Your task to perform on an android device: Search for flights from Sydney to Zurich Image 0: 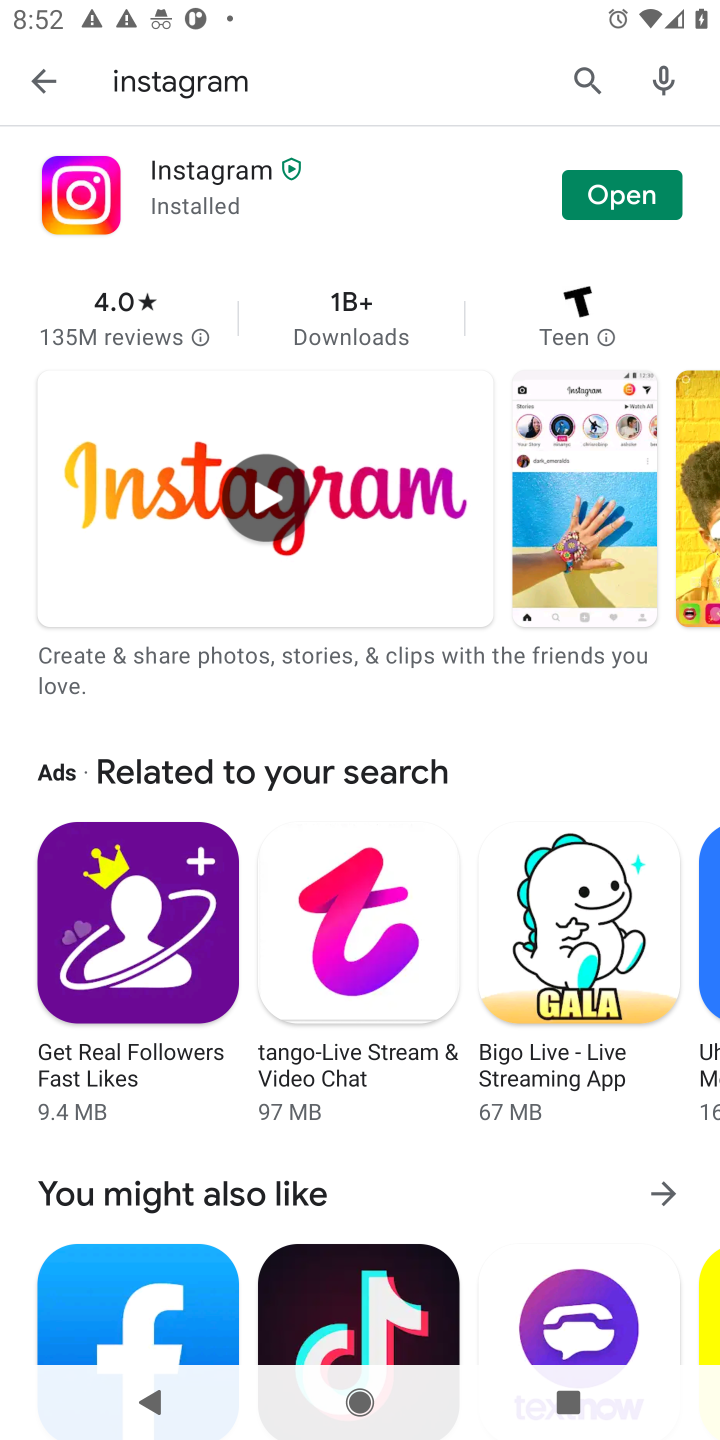
Step 0: press home button
Your task to perform on an android device: Search for flights from Sydney to Zurich Image 1: 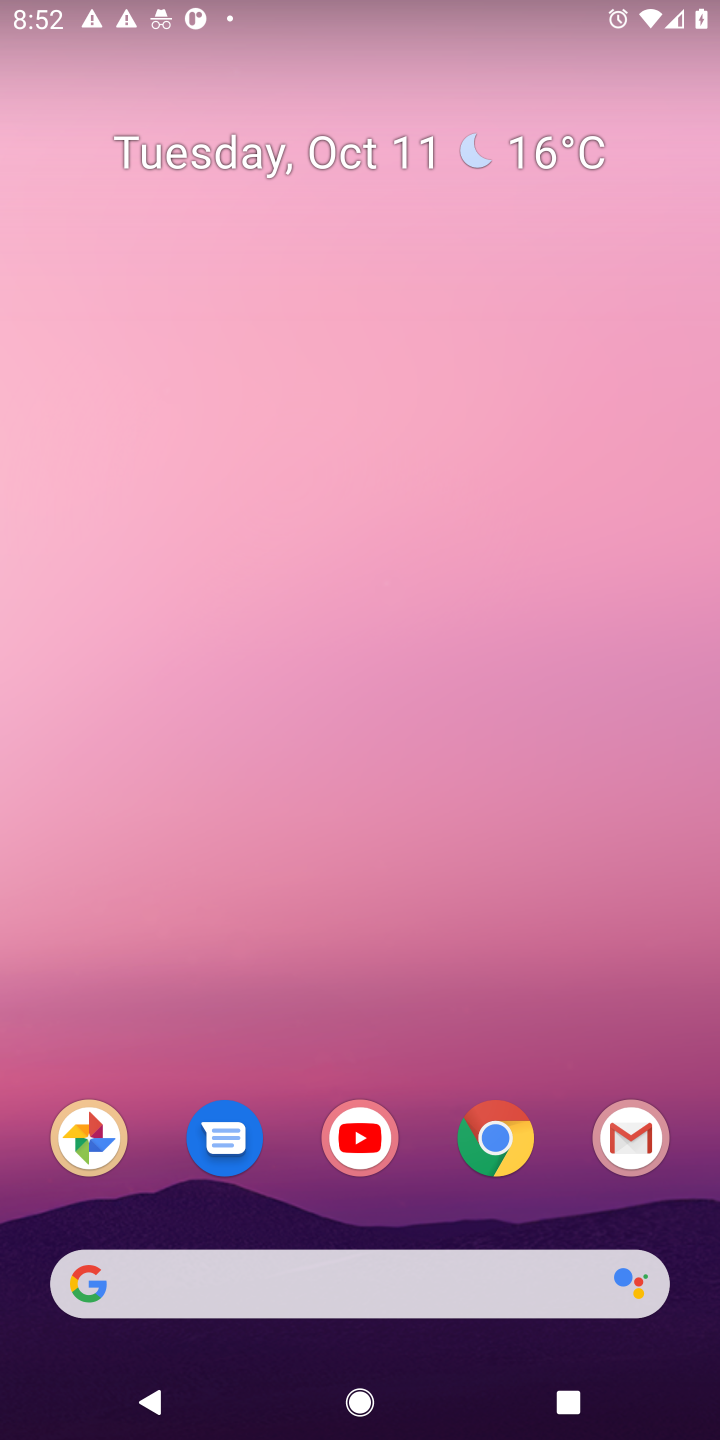
Step 1: click (407, 1265)
Your task to perform on an android device: Search for flights from Sydney to Zurich Image 2: 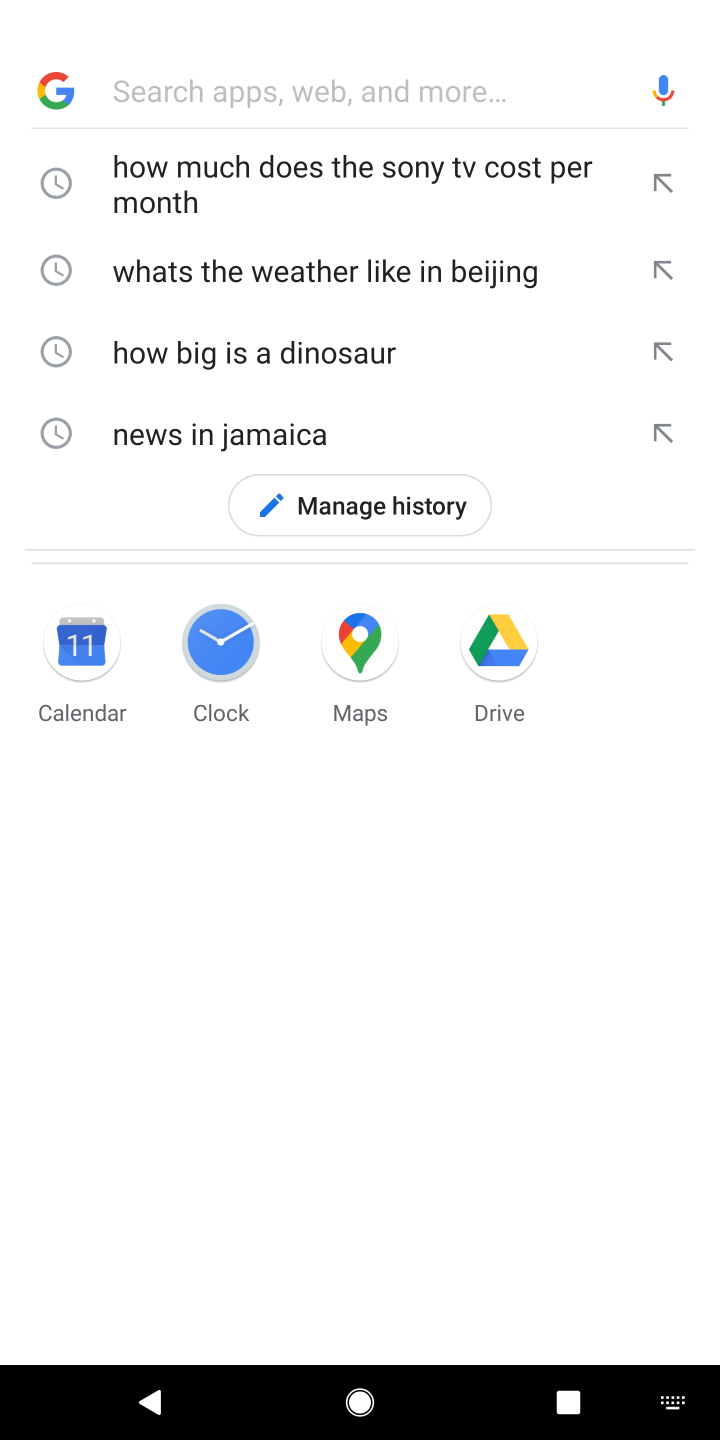
Step 2: type "flights from Sydney to Zurich"
Your task to perform on an android device: Search for flights from Sydney to Zurich Image 3: 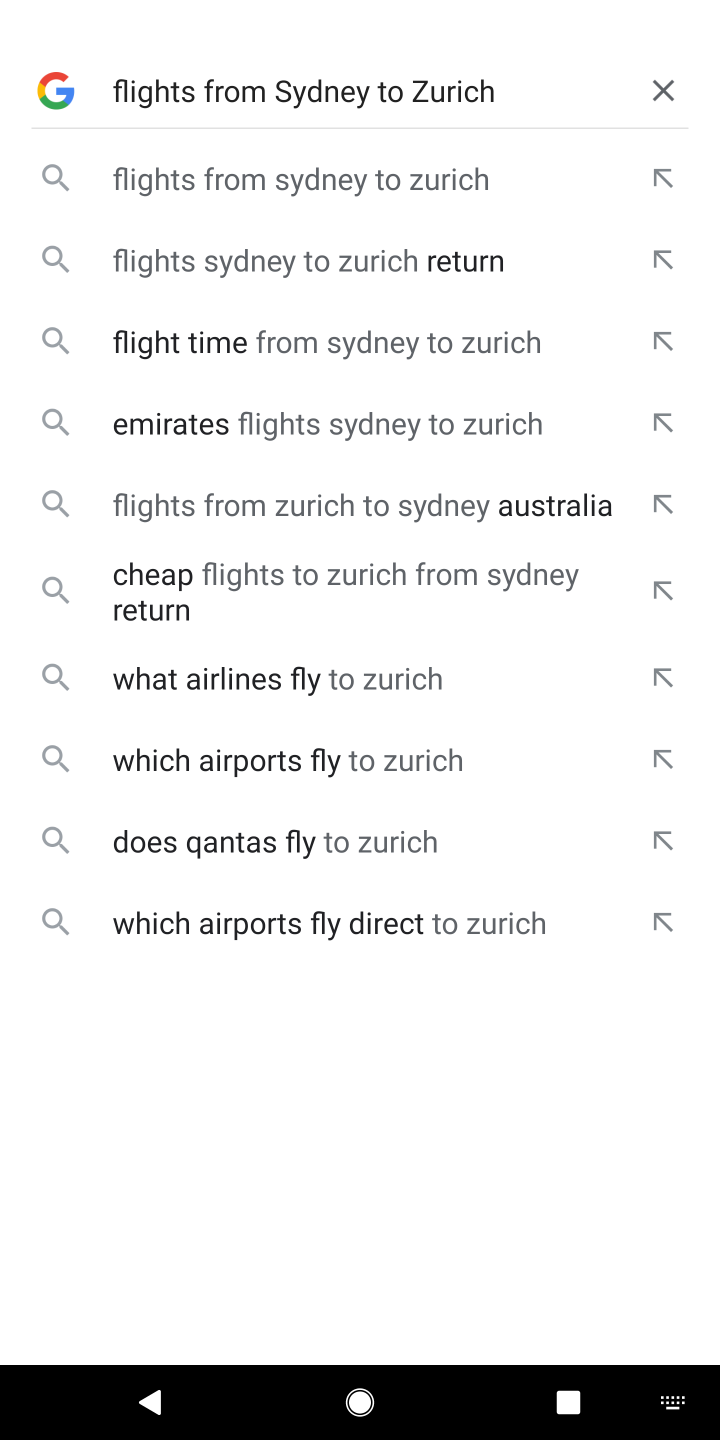
Step 3: click (231, 175)
Your task to perform on an android device: Search for flights from Sydney to Zurich Image 4: 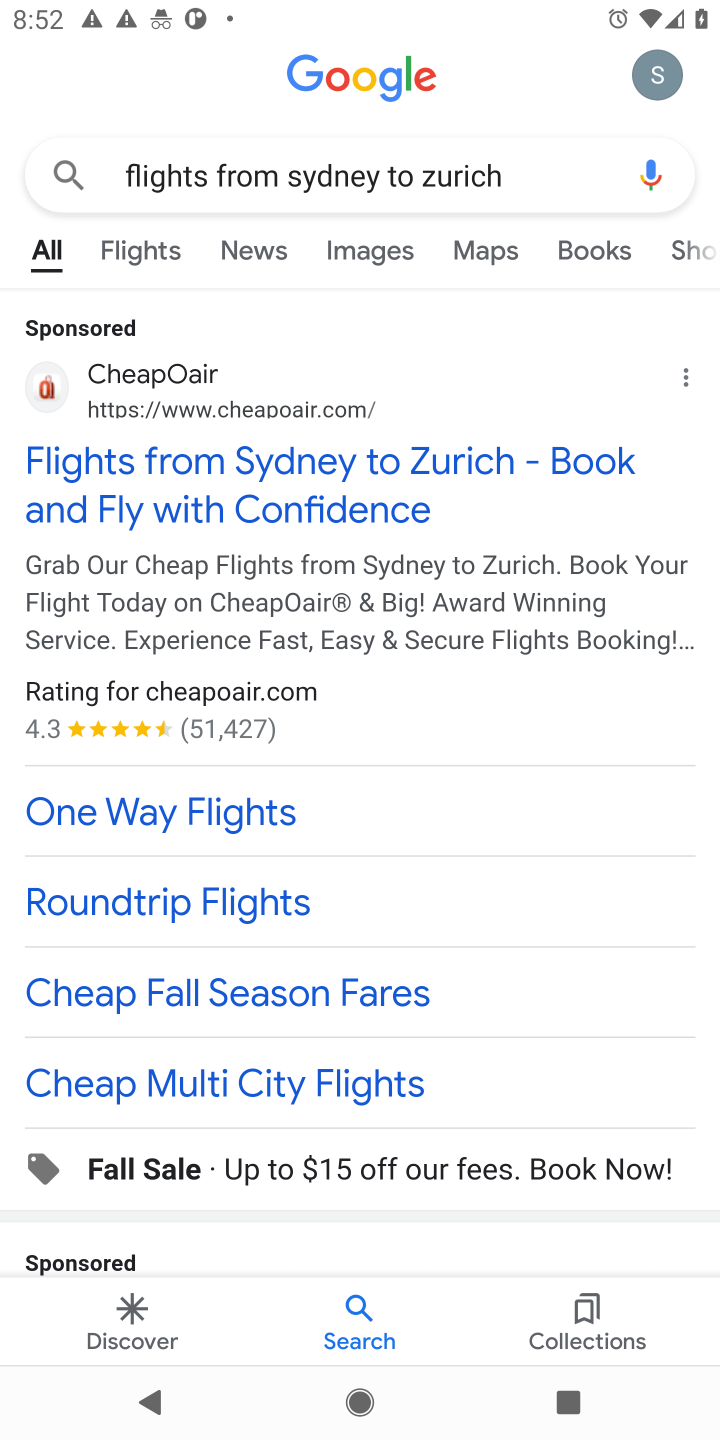
Step 4: click (239, 456)
Your task to perform on an android device: Search for flights from Sydney to Zurich Image 5: 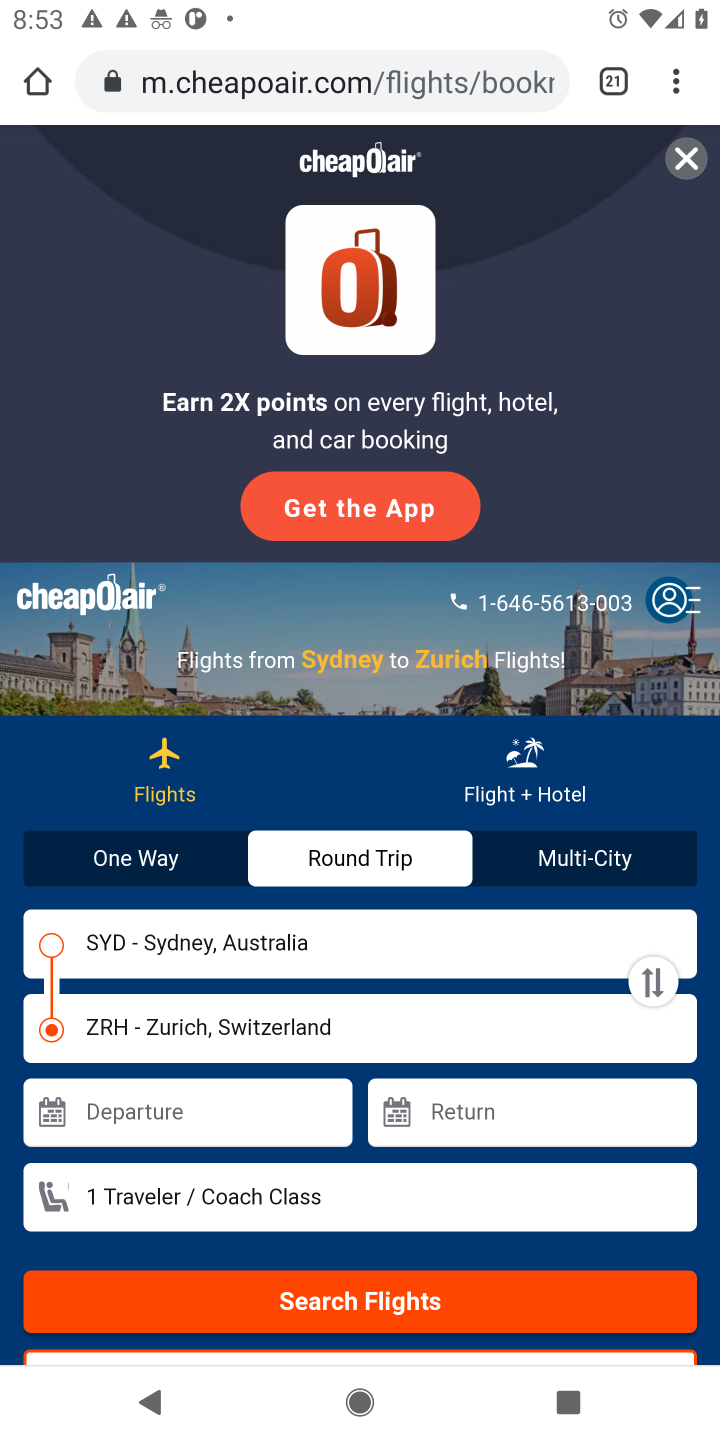
Step 5: click (121, 870)
Your task to perform on an android device: Search for flights from Sydney to Zurich Image 6: 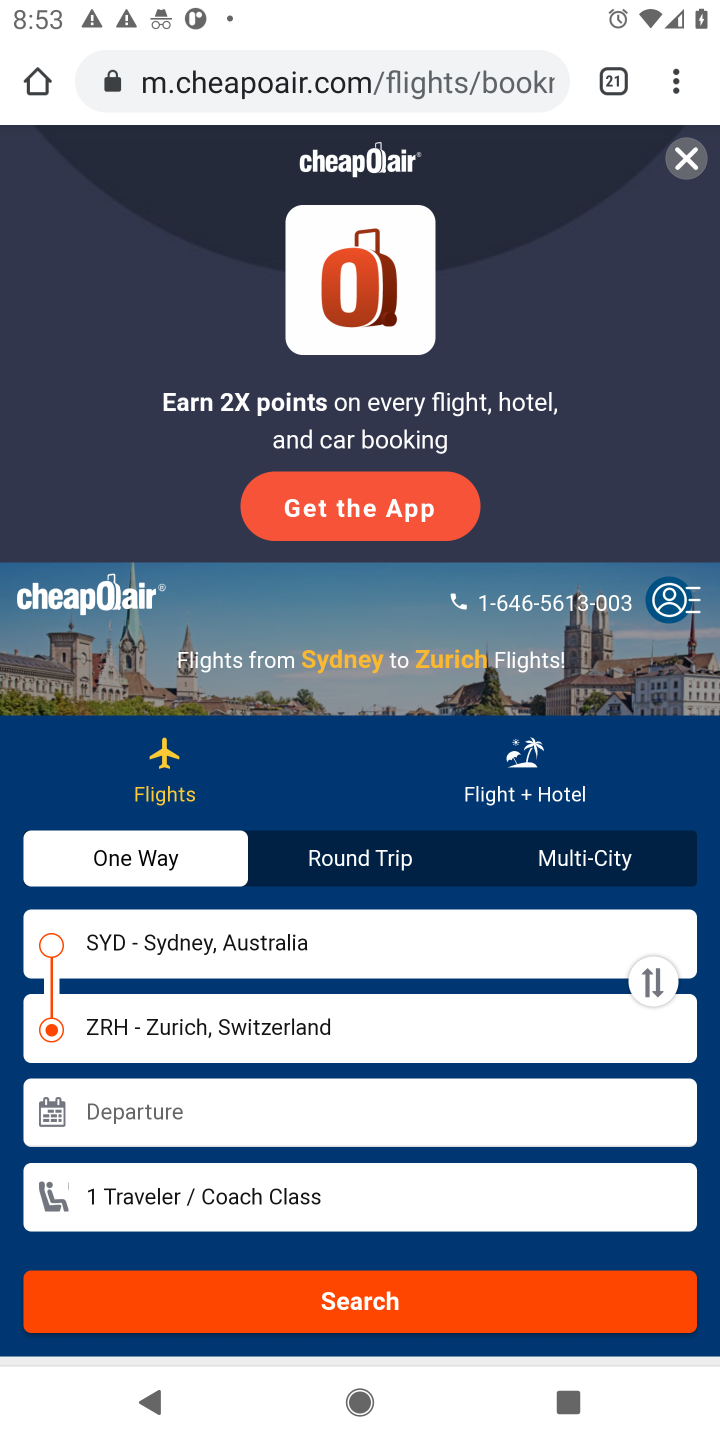
Step 6: click (400, 1306)
Your task to perform on an android device: Search for flights from Sydney to Zurich Image 7: 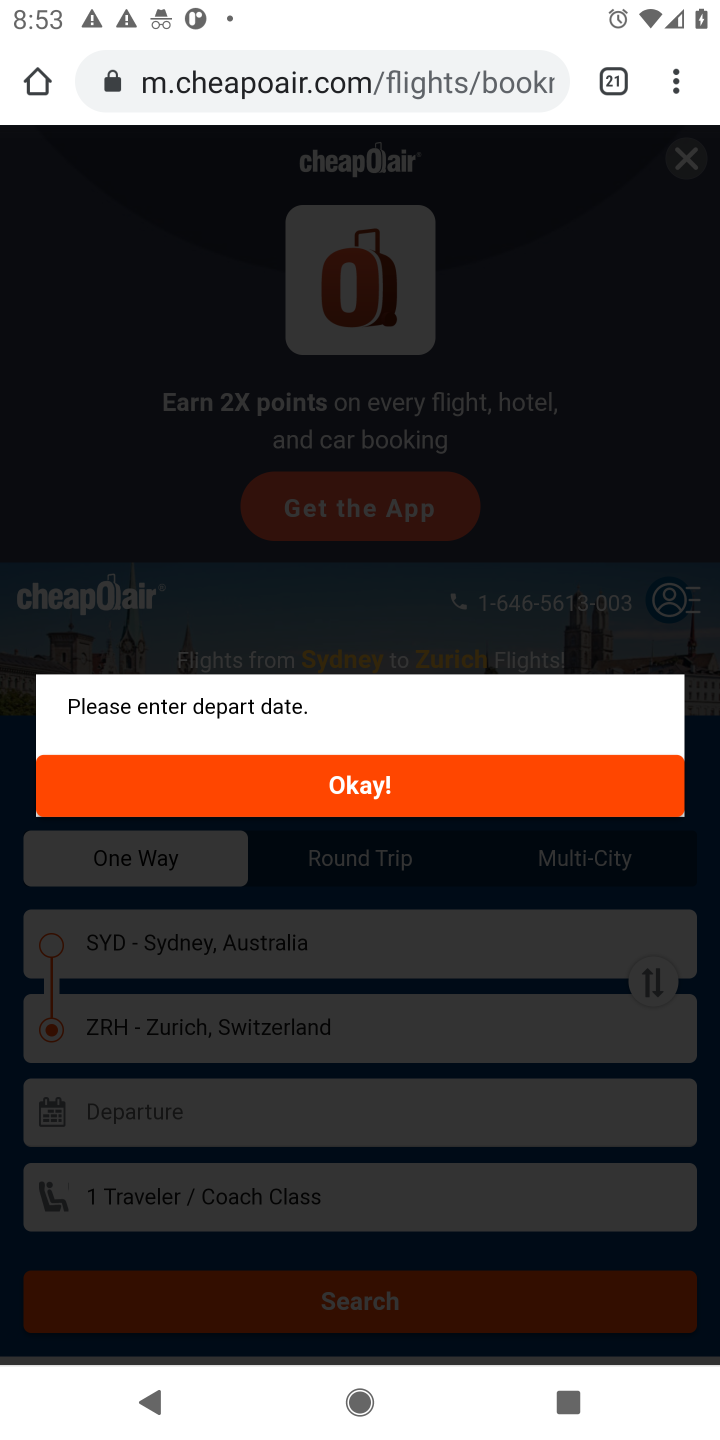
Step 7: click (382, 785)
Your task to perform on an android device: Search for flights from Sydney to Zurich Image 8: 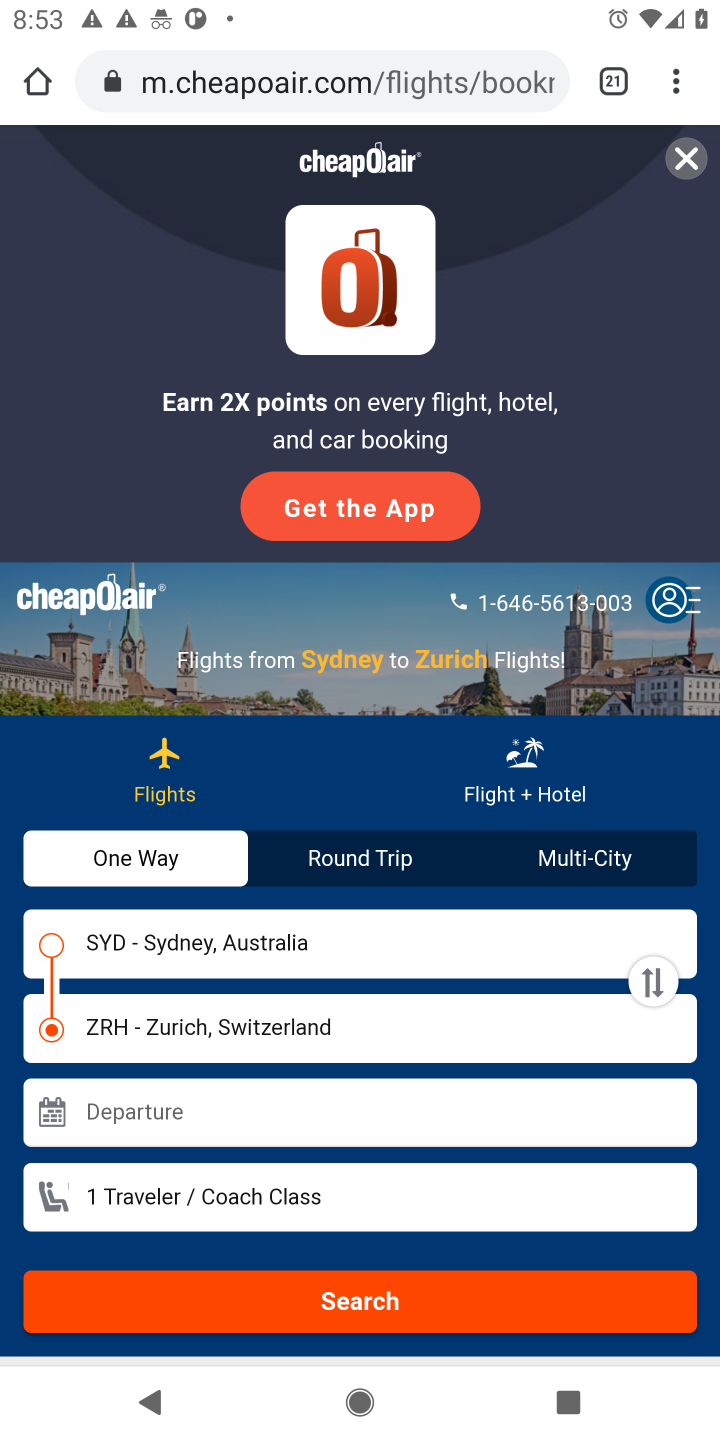
Step 8: click (226, 1095)
Your task to perform on an android device: Search for flights from Sydney to Zurich Image 9: 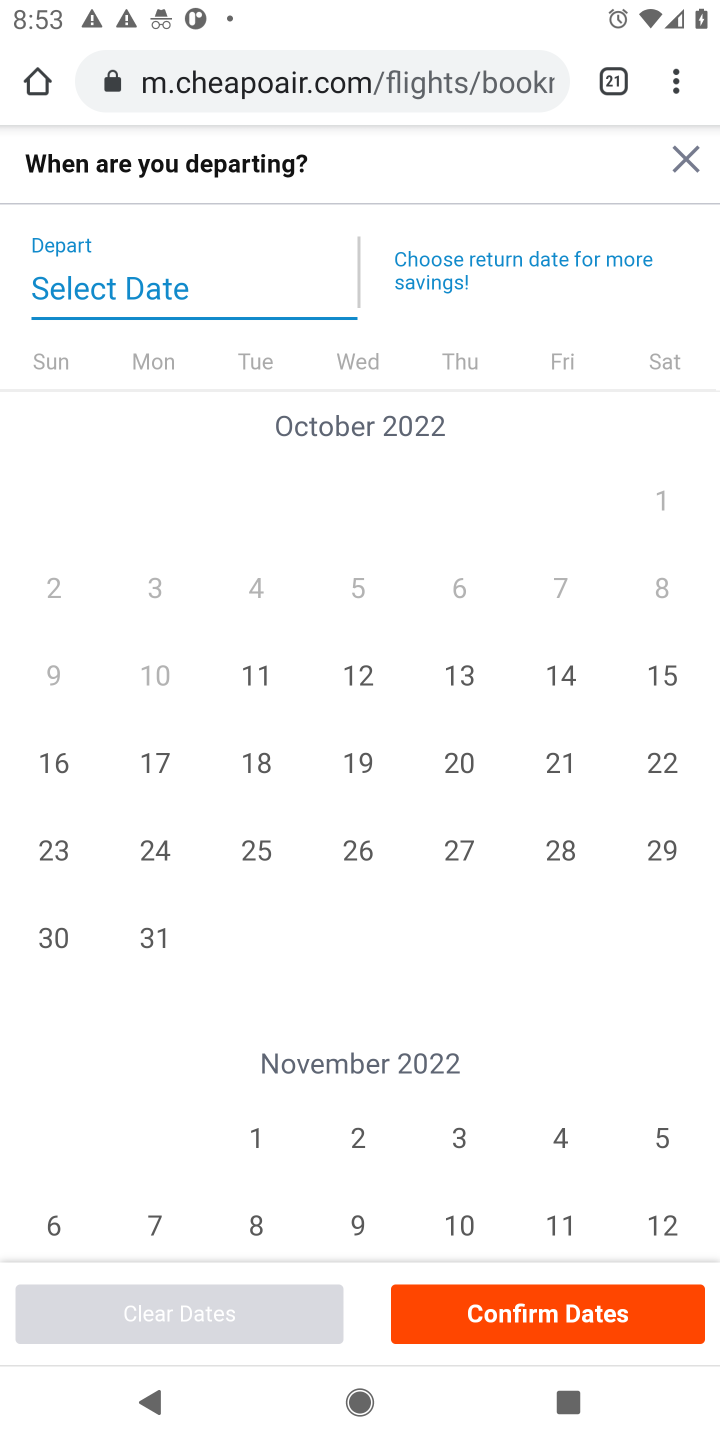
Step 9: click (252, 751)
Your task to perform on an android device: Search for flights from Sydney to Zurich Image 10: 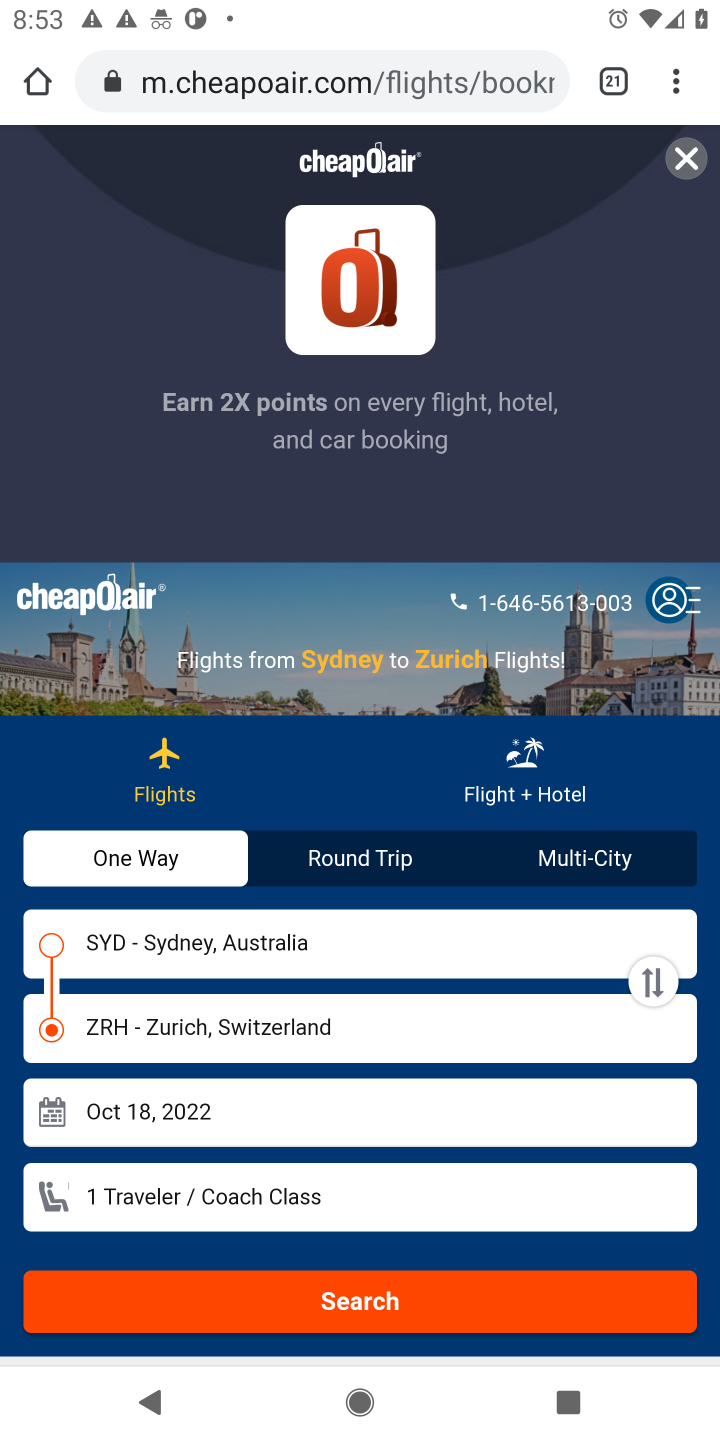
Step 10: click (477, 1309)
Your task to perform on an android device: Search for flights from Sydney to Zurich Image 11: 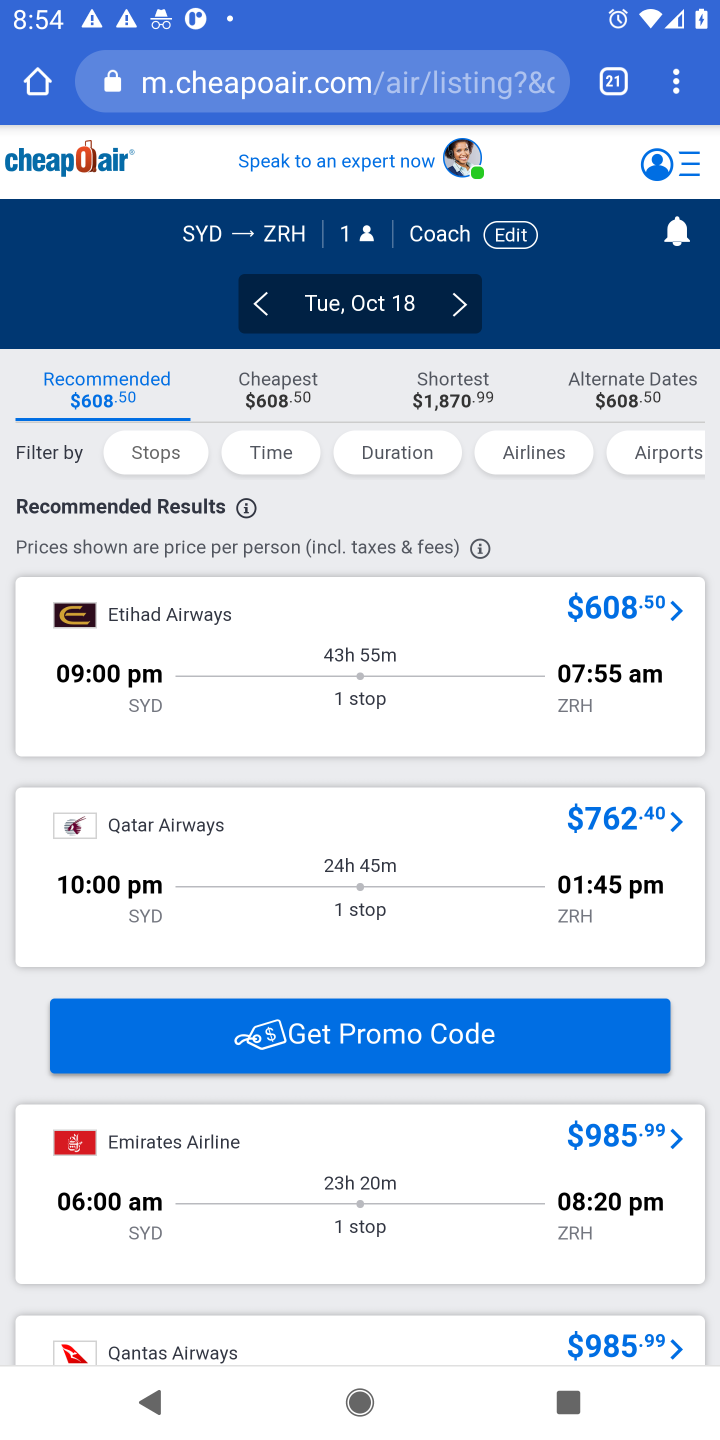
Step 11: task complete